Your task to perform on an android device: clear history in the chrome app Image 0: 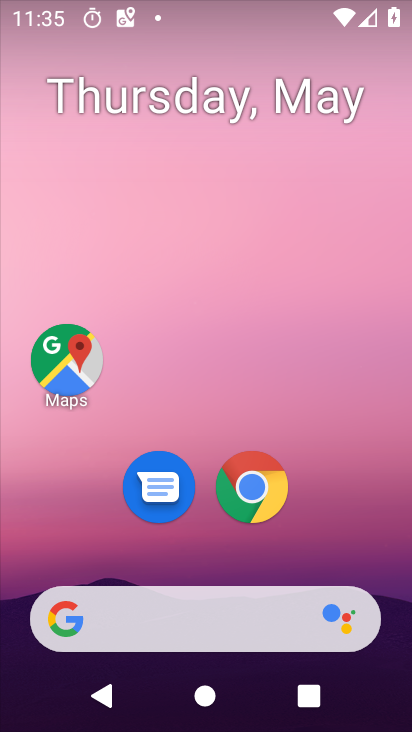
Step 0: click (248, 491)
Your task to perform on an android device: clear history in the chrome app Image 1: 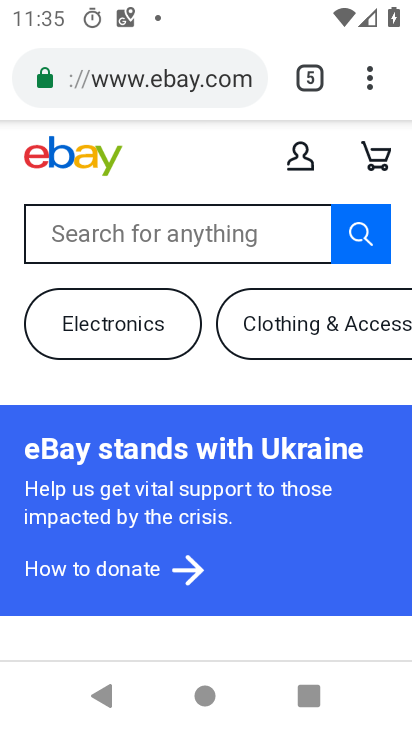
Step 1: click (378, 73)
Your task to perform on an android device: clear history in the chrome app Image 2: 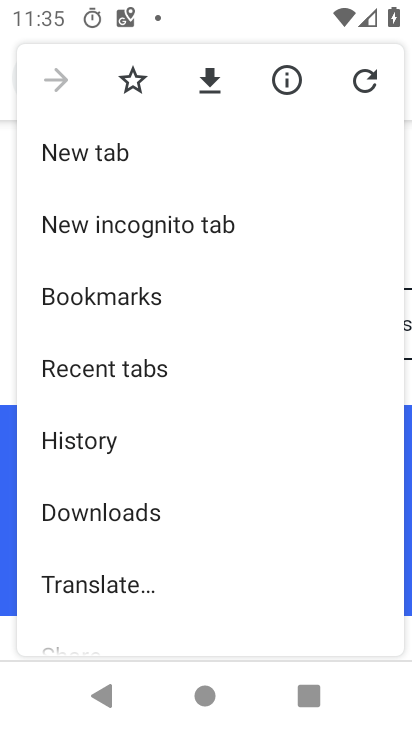
Step 2: drag from (187, 614) to (242, 284)
Your task to perform on an android device: clear history in the chrome app Image 3: 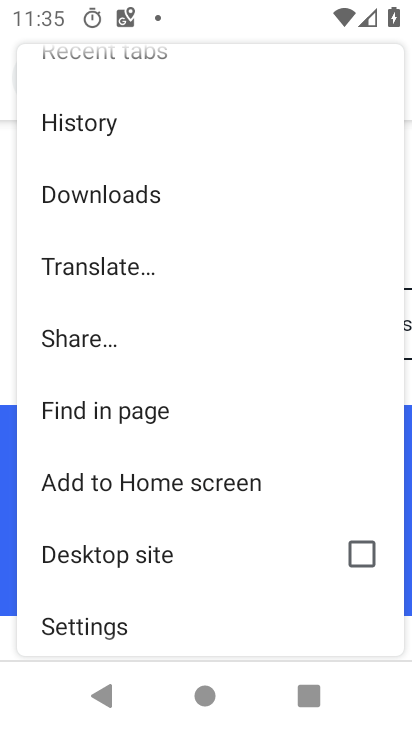
Step 3: click (112, 126)
Your task to perform on an android device: clear history in the chrome app Image 4: 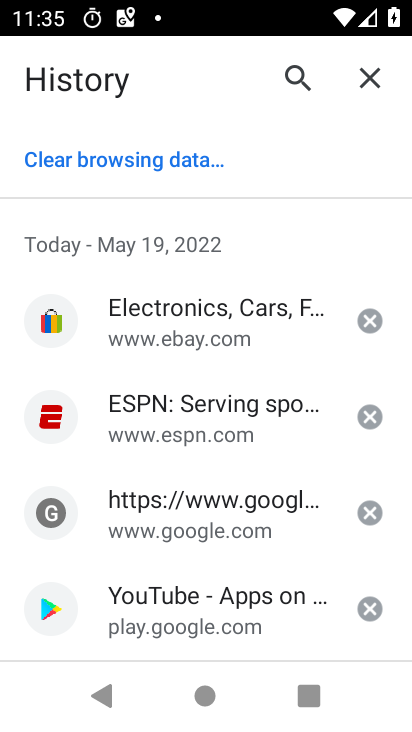
Step 4: click (120, 152)
Your task to perform on an android device: clear history in the chrome app Image 5: 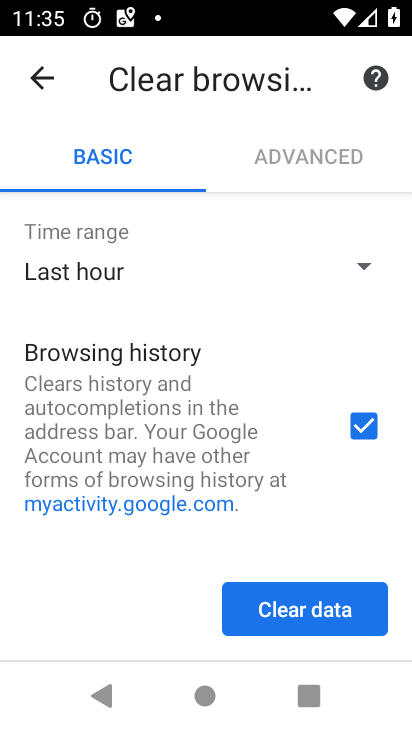
Step 5: click (358, 256)
Your task to perform on an android device: clear history in the chrome app Image 6: 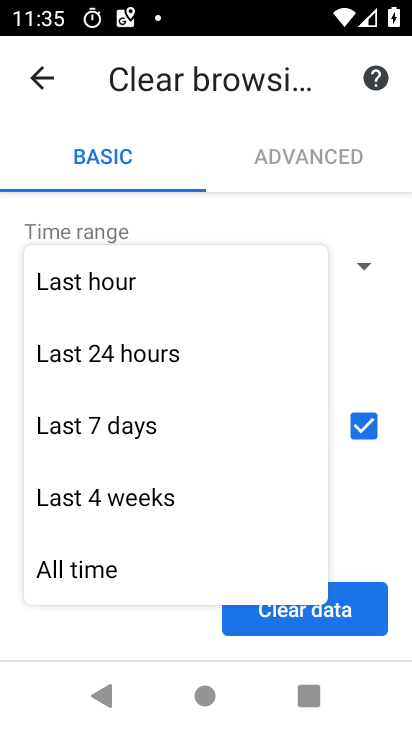
Step 6: click (133, 558)
Your task to perform on an android device: clear history in the chrome app Image 7: 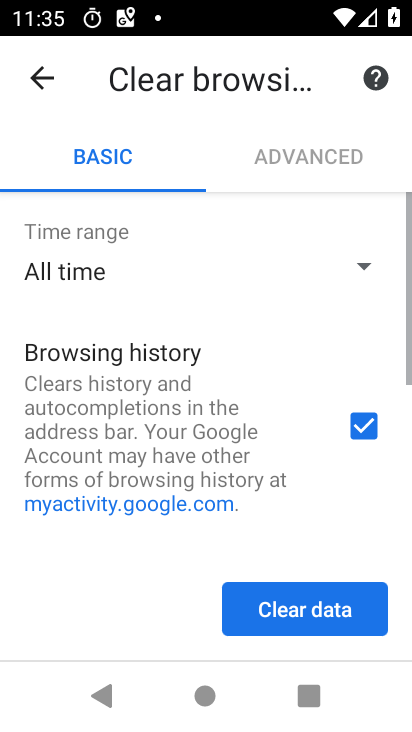
Step 7: click (322, 609)
Your task to perform on an android device: clear history in the chrome app Image 8: 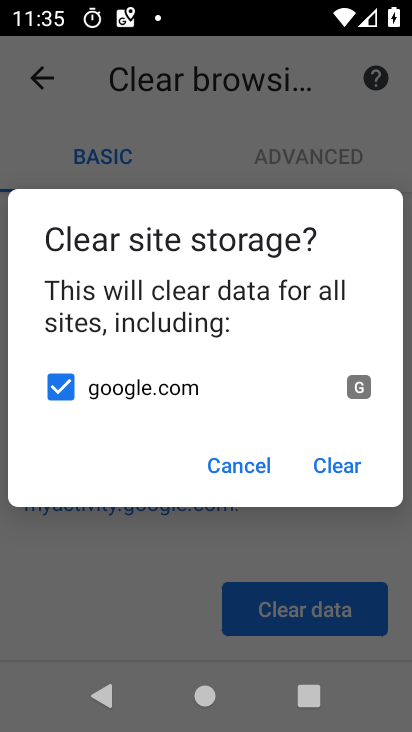
Step 8: click (340, 473)
Your task to perform on an android device: clear history in the chrome app Image 9: 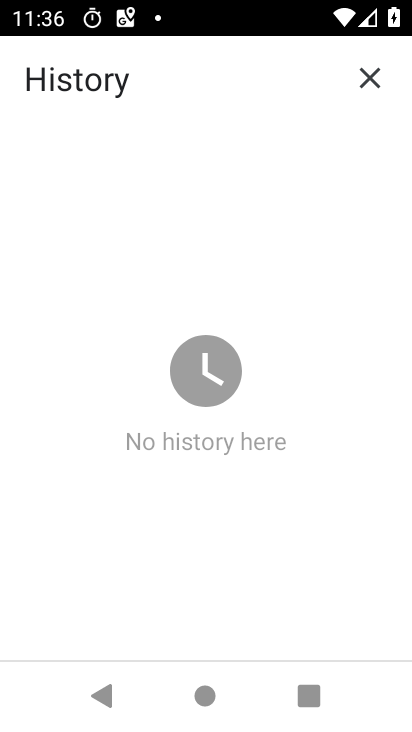
Step 9: task complete